Your task to perform on an android device: turn off notifications in google photos Image 0: 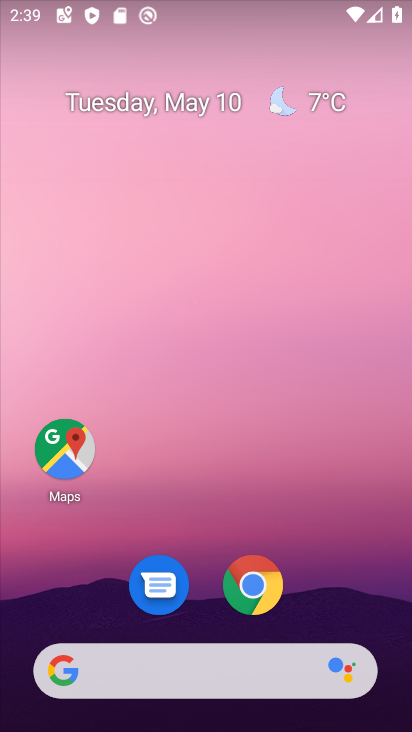
Step 0: drag from (363, 575) to (355, 53)
Your task to perform on an android device: turn off notifications in google photos Image 1: 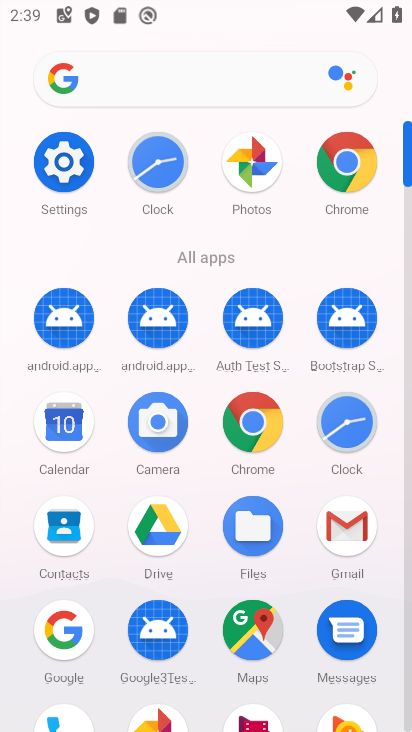
Step 1: click (74, 169)
Your task to perform on an android device: turn off notifications in google photos Image 2: 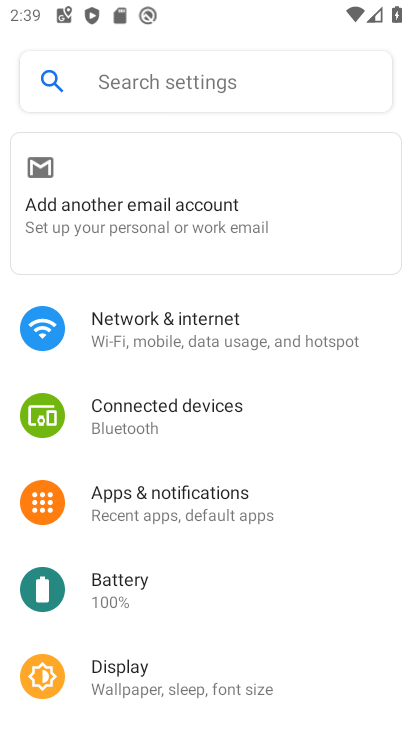
Step 2: click (231, 499)
Your task to perform on an android device: turn off notifications in google photos Image 3: 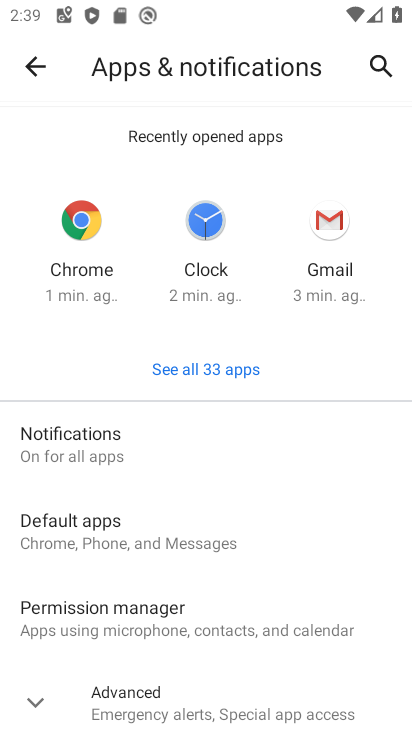
Step 3: click (230, 366)
Your task to perform on an android device: turn off notifications in google photos Image 4: 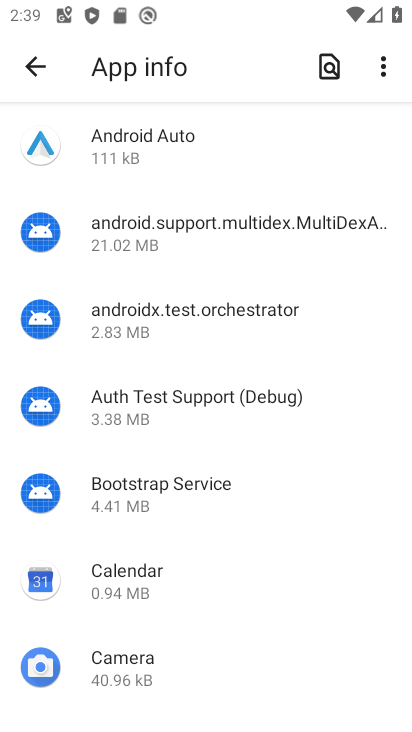
Step 4: drag from (235, 530) to (256, 0)
Your task to perform on an android device: turn off notifications in google photos Image 5: 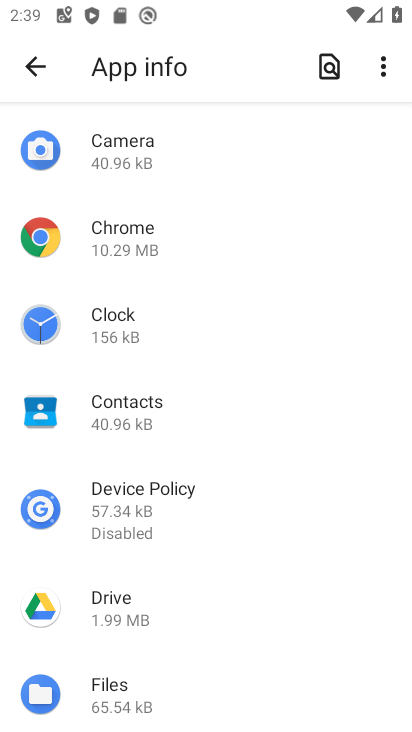
Step 5: drag from (206, 645) to (294, 2)
Your task to perform on an android device: turn off notifications in google photos Image 6: 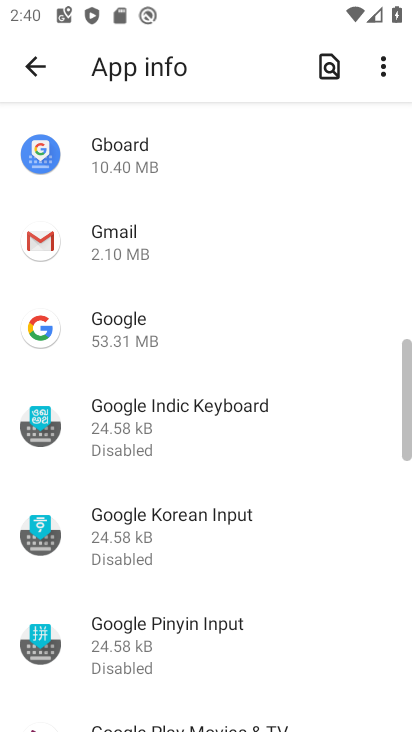
Step 6: drag from (301, 652) to (344, 4)
Your task to perform on an android device: turn off notifications in google photos Image 7: 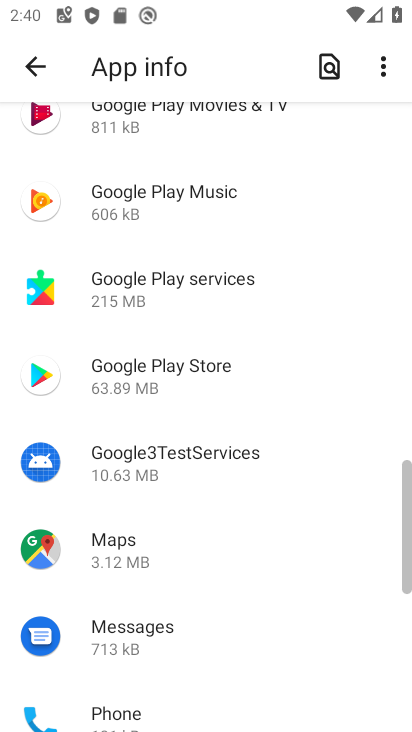
Step 7: drag from (212, 693) to (258, 66)
Your task to perform on an android device: turn off notifications in google photos Image 8: 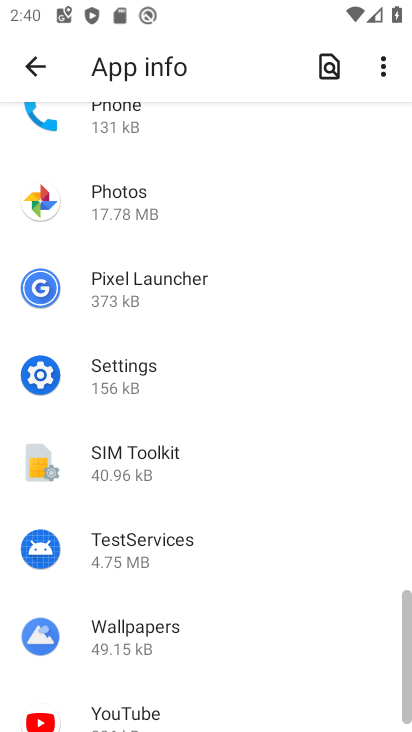
Step 8: click (128, 198)
Your task to perform on an android device: turn off notifications in google photos Image 9: 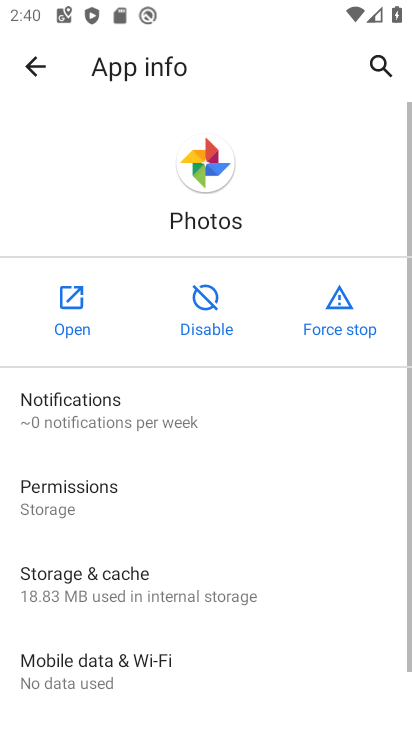
Step 9: click (166, 415)
Your task to perform on an android device: turn off notifications in google photos Image 10: 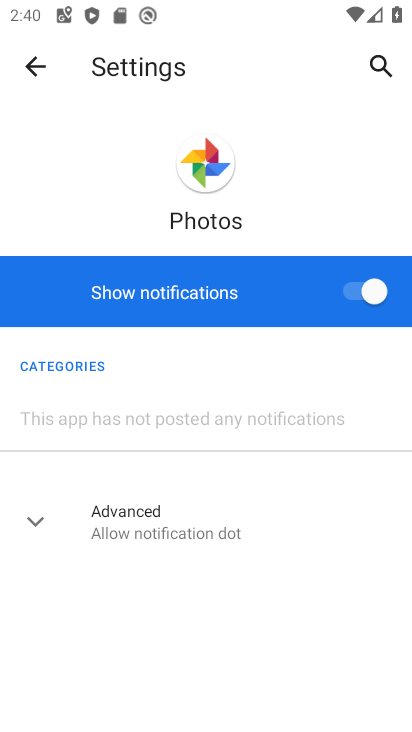
Step 10: click (358, 297)
Your task to perform on an android device: turn off notifications in google photos Image 11: 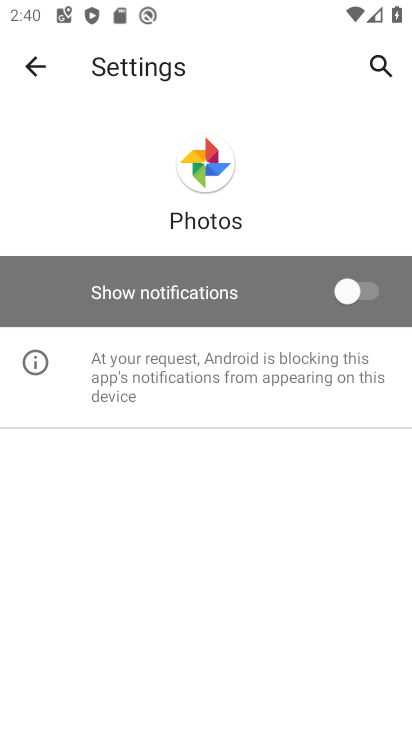
Step 11: task complete